Your task to perform on an android device: change the clock style Image 0: 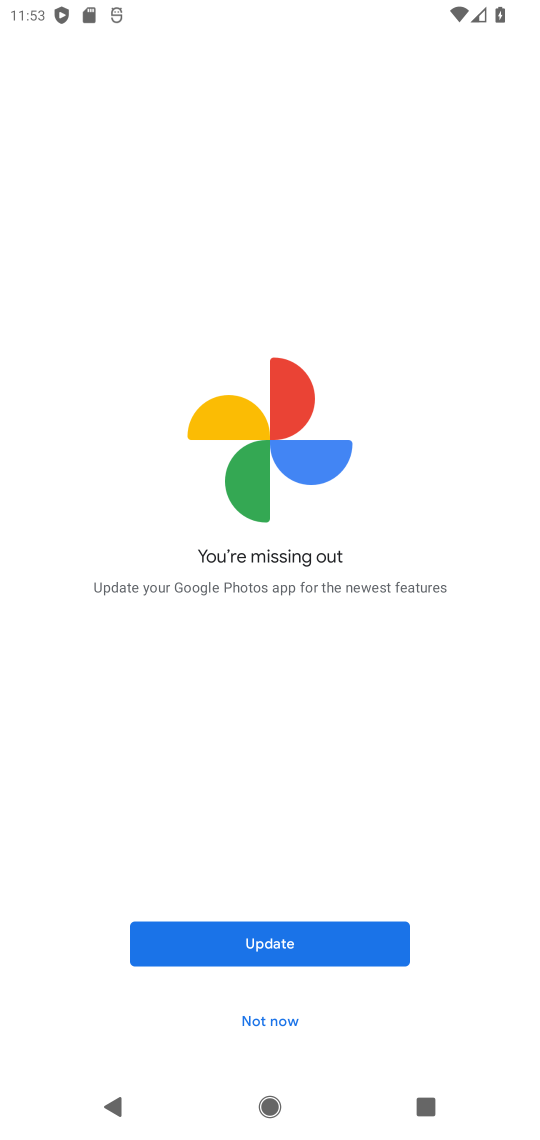
Step 0: press home button
Your task to perform on an android device: change the clock style Image 1: 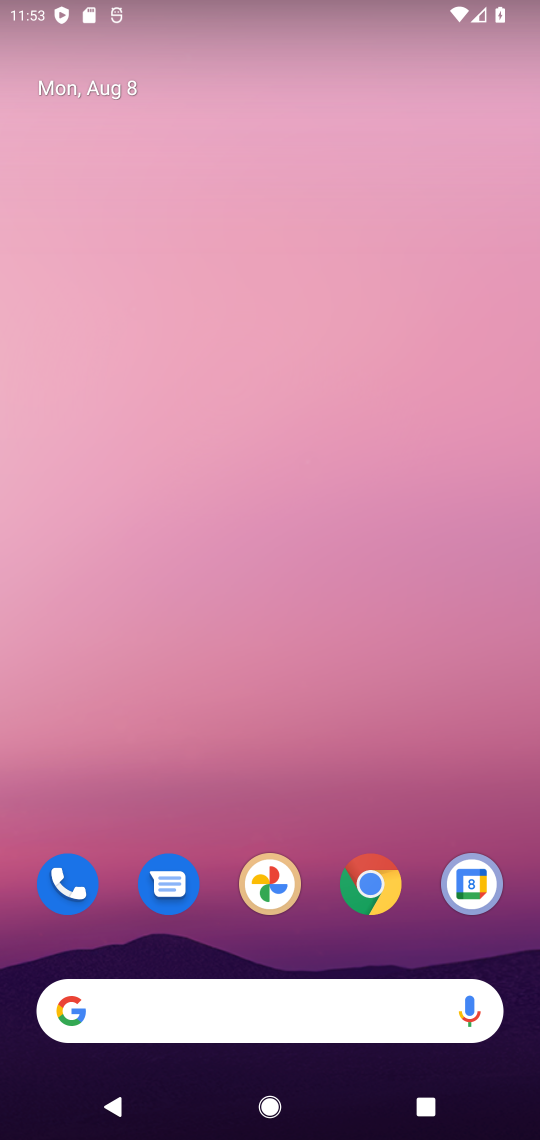
Step 1: drag from (343, 1098) to (398, 248)
Your task to perform on an android device: change the clock style Image 2: 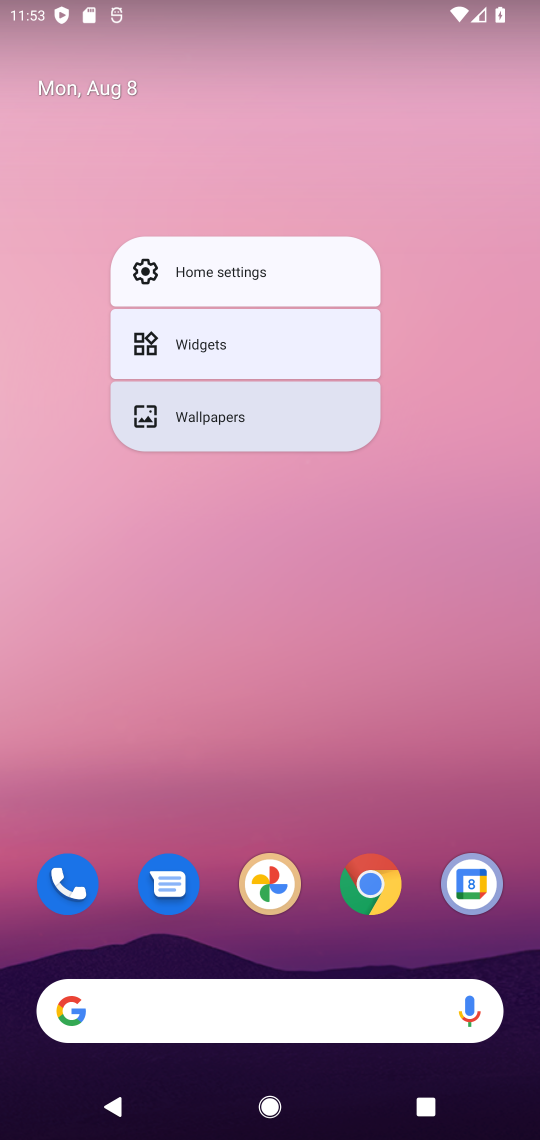
Step 2: drag from (186, 1080) to (440, 510)
Your task to perform on an android device: change the clock style Image 3: 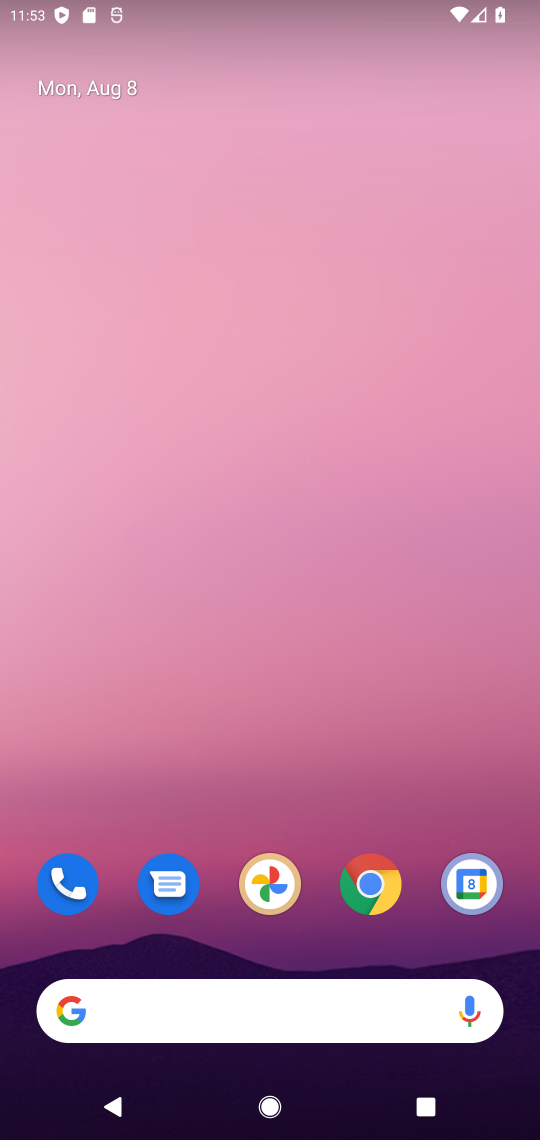
Step 3: drag from (348, 1096) to (89, 47)
Your task to perform on an android device: change the clock style Image 4: 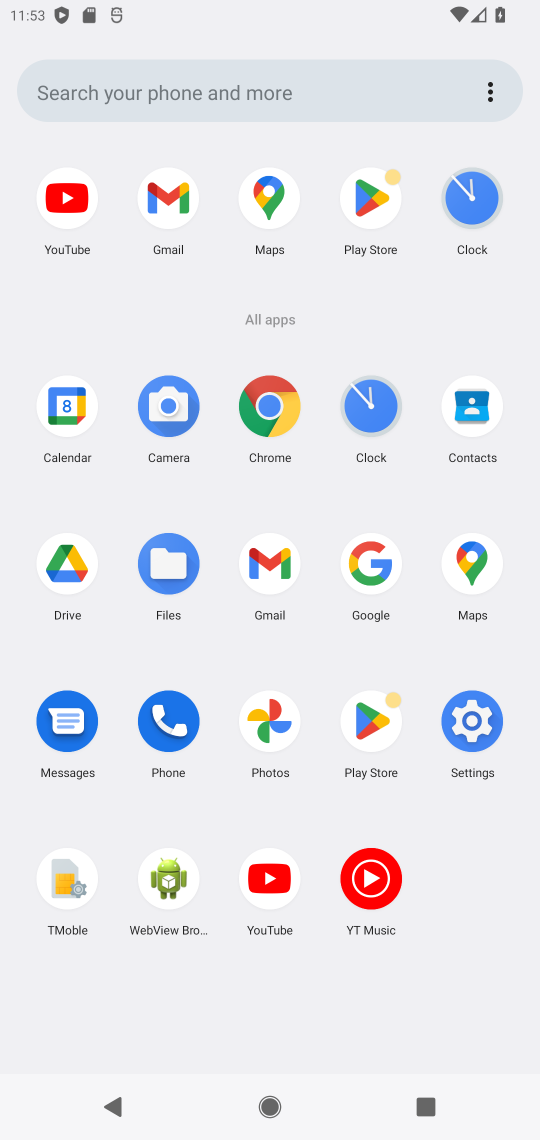
Step 4: click (380, 415)
Your task to perform on an android device: change the clock style Image 5: 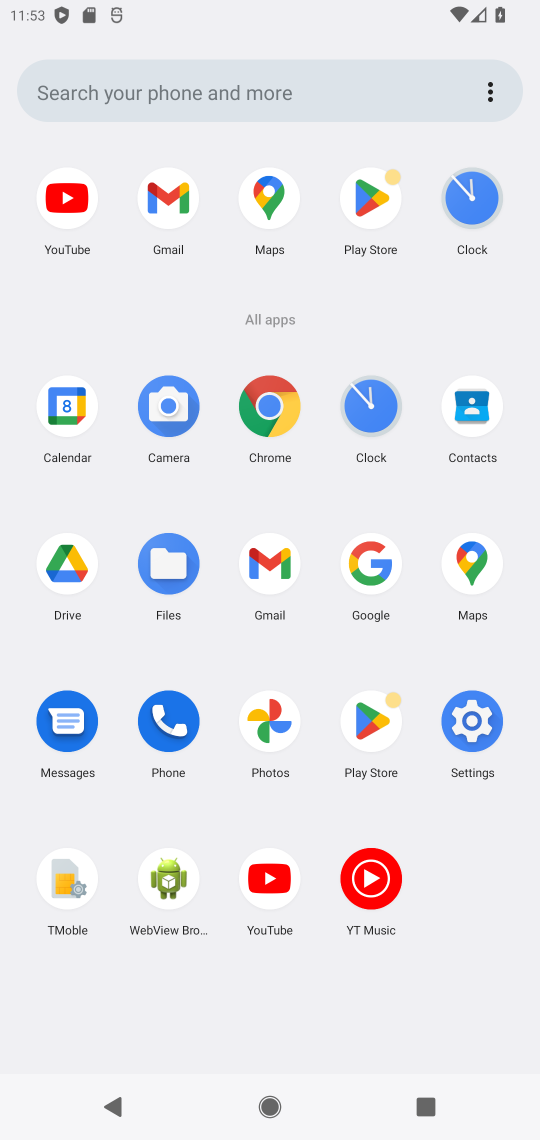
Step 5: click (380, 415)
Your task to perform on an android device: change the clock style Image 6: 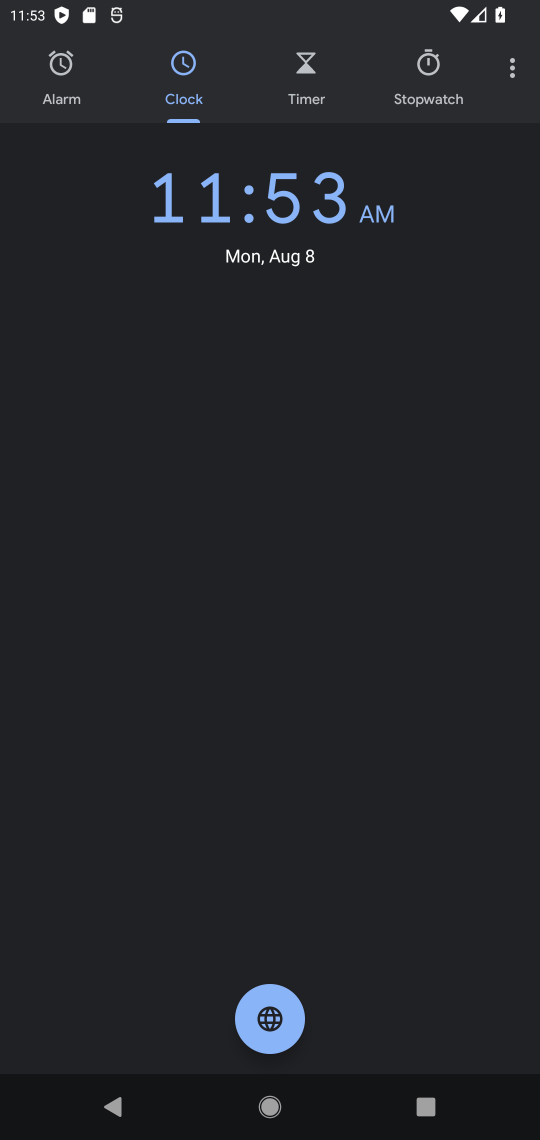
Step 6: click (509, 67)
Your task to perform on an android device: change the clock style Image 7: 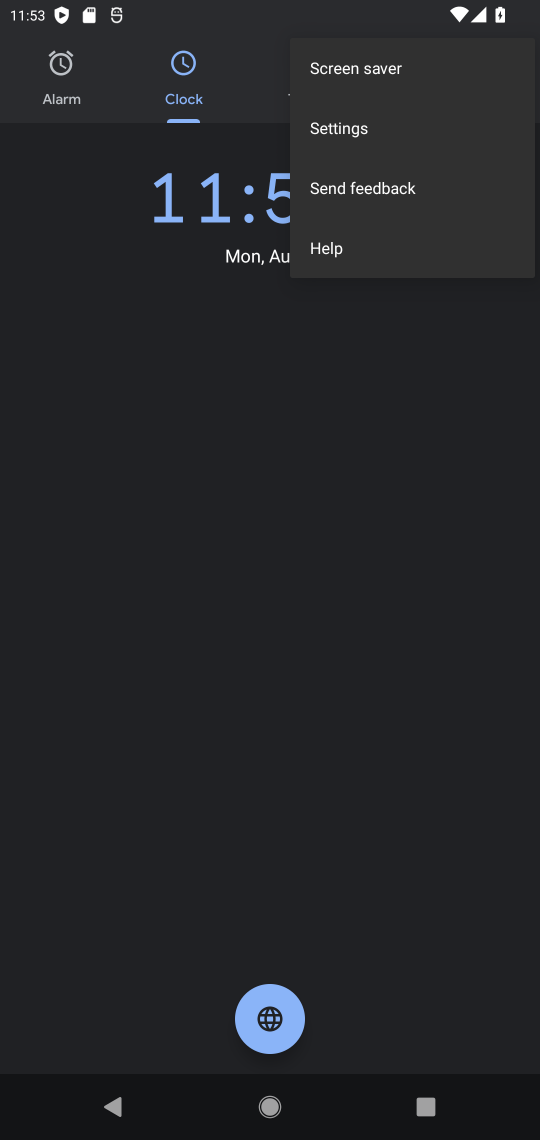
Step 7: click (368, 126)
Your task to perform on an android device: change the clock style Image 8: 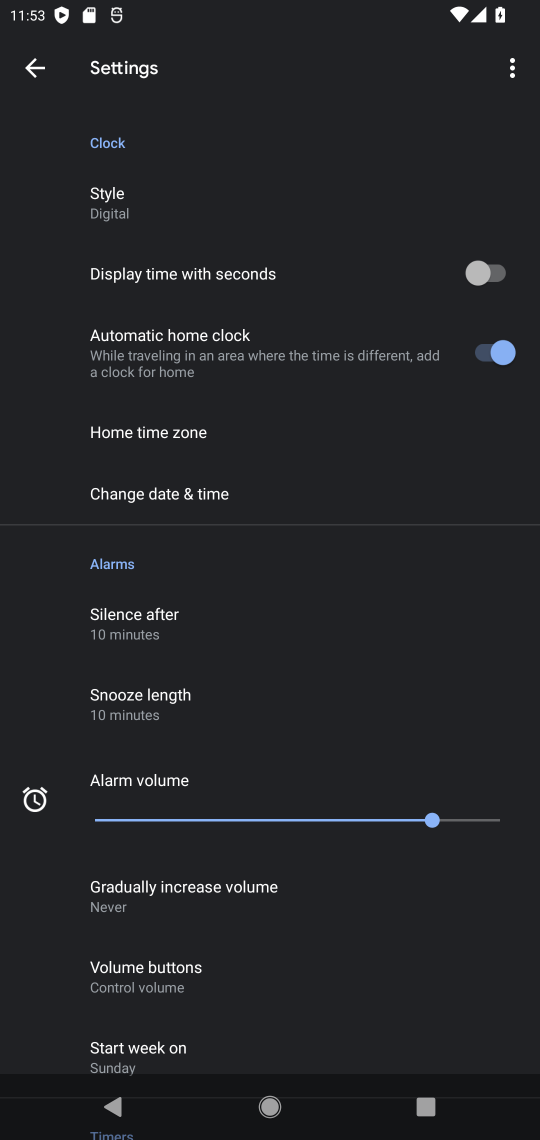
Step 8: click (152, 165)
Your task to perform on an android device: change the clock style Image 9: 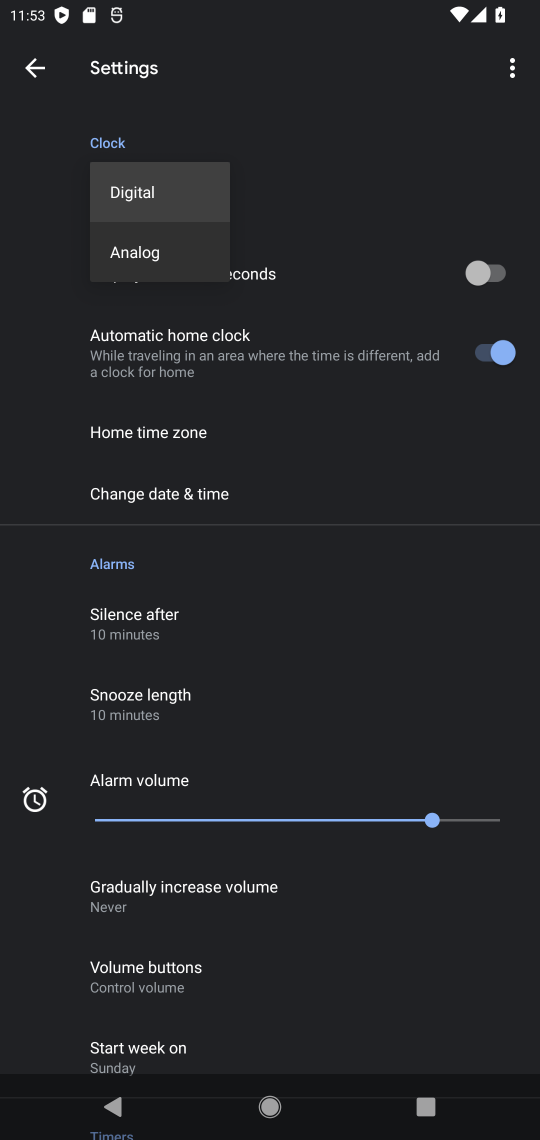
Step 9: click (168, 263)
Your task to perform on an android device: change the clock style Image 10: 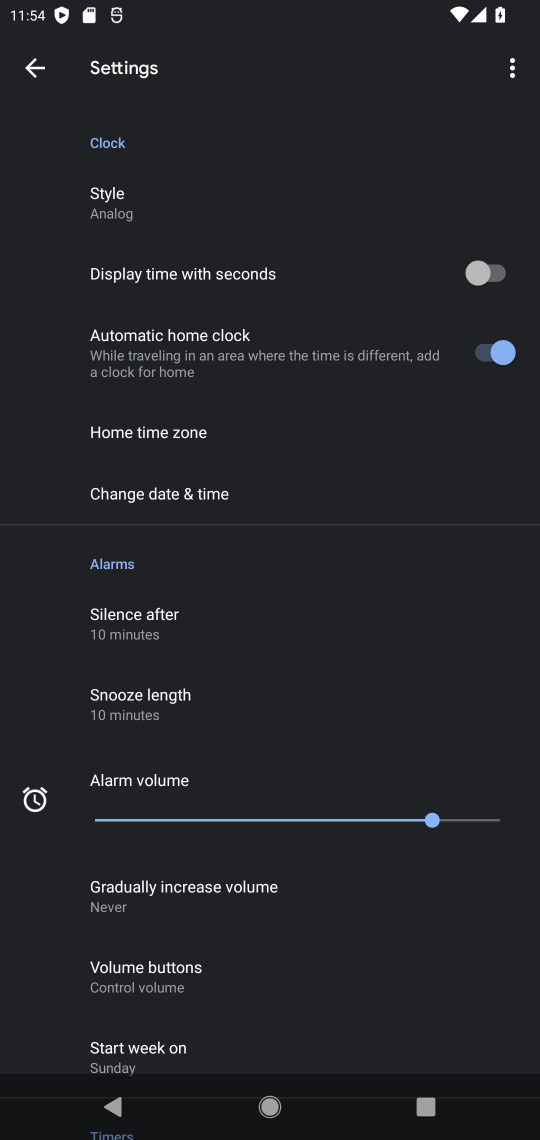
Step 10: task complete